Your task to perform on an android device: See recent photos Image 0: 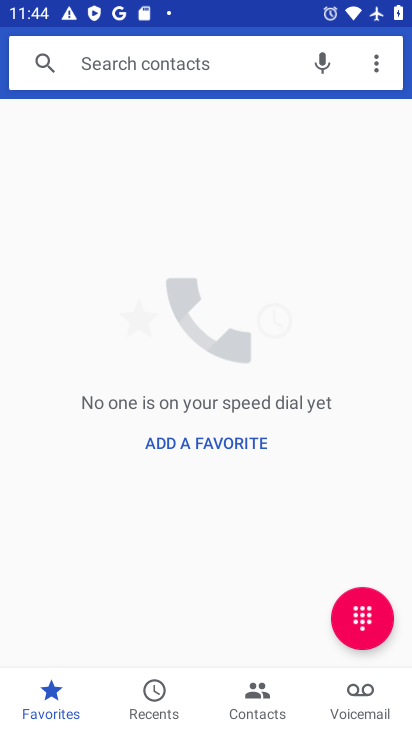
Step 0: press home button
Your task to perform on an android device: See recent photos Image 1: 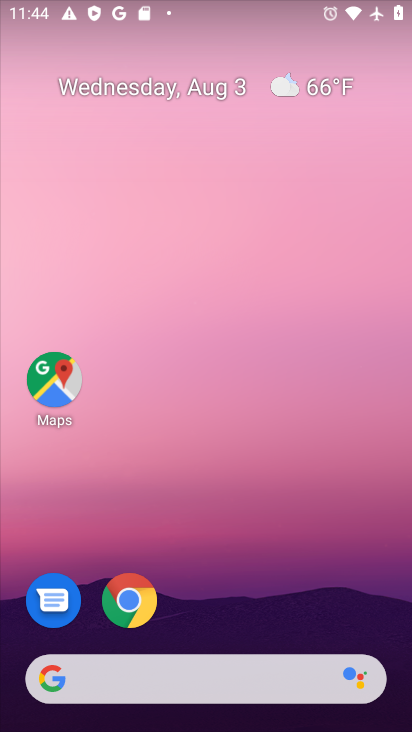
Step 1: drag from (234, 633) to (139, 5)
Your task to perform on an android device: See recent photos Image 2: 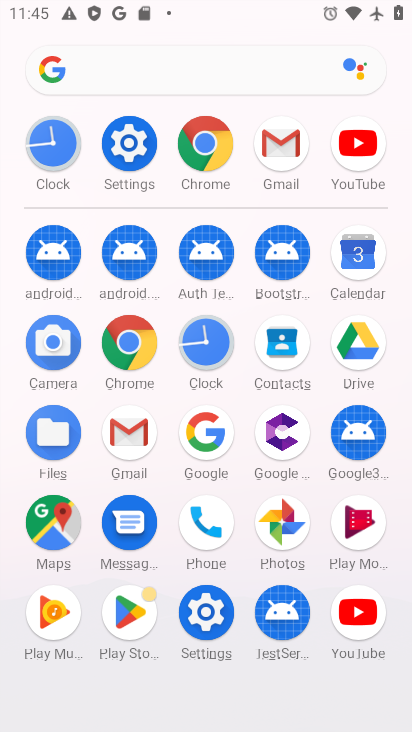
Step 2: click (278, 546)
Your task to perform on an android device: See recent photos Image 3: 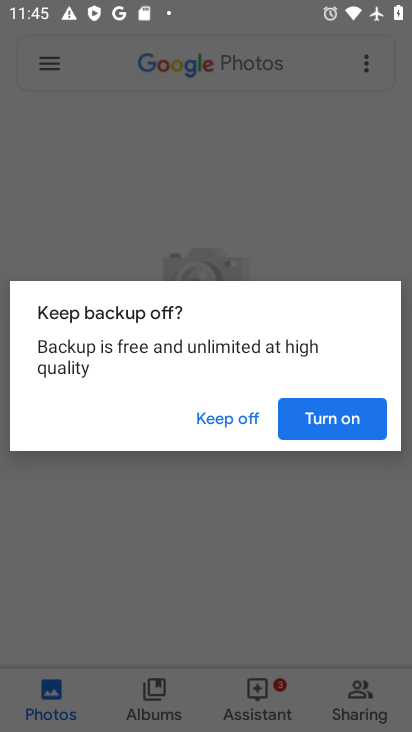
Step 3: click (316, 428)
Your task to perform on an android device: See recent photos Image 4: 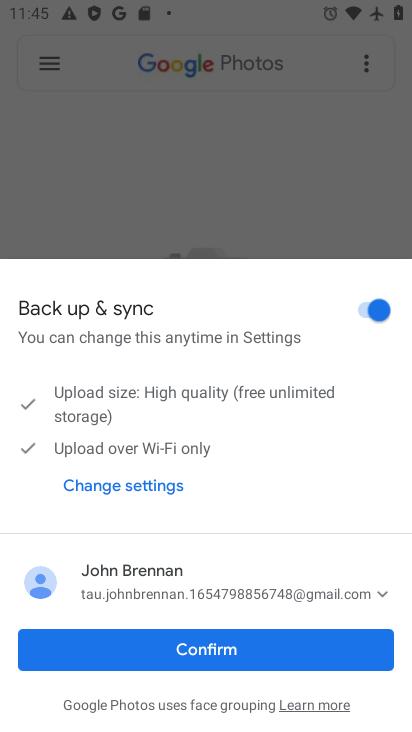
Step 4: click (296, 636)
Your task to perform on an android device: See recent photos Image 5: 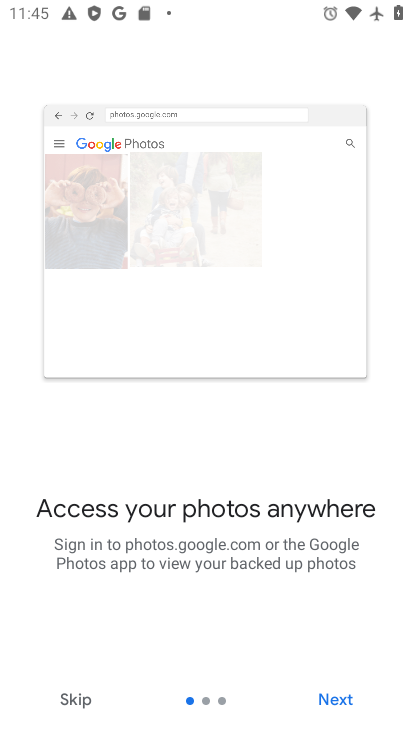
Step 5: click (89, 694)
Your task to perform on an android device: See recent photos Image 6: 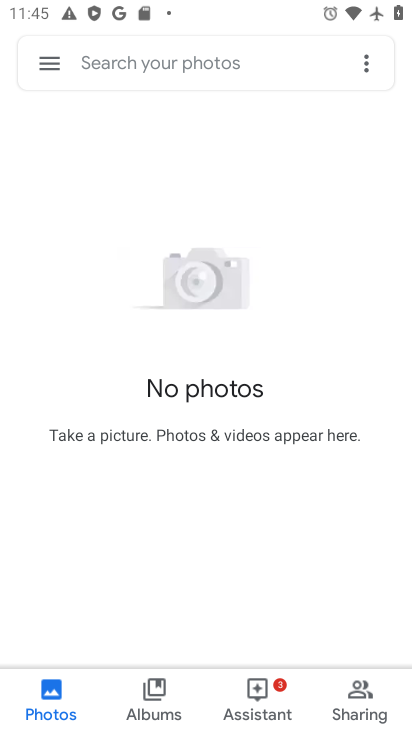
Step 6: task complete